Your task to perform on an android device: Open maps Image 0: 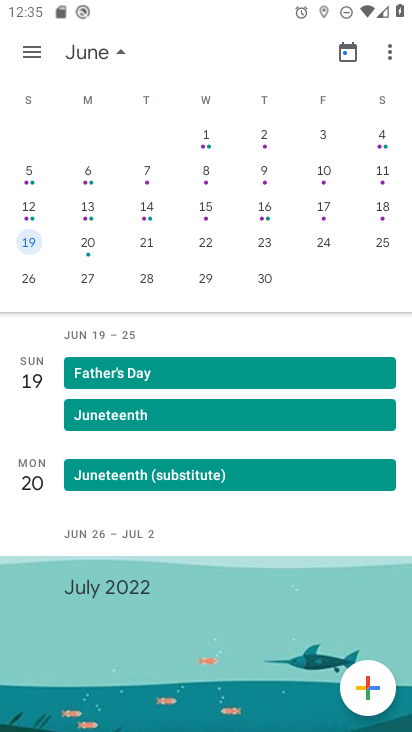
Step 0: press home button
Your task to perform on an android device: Open maps Image 1: 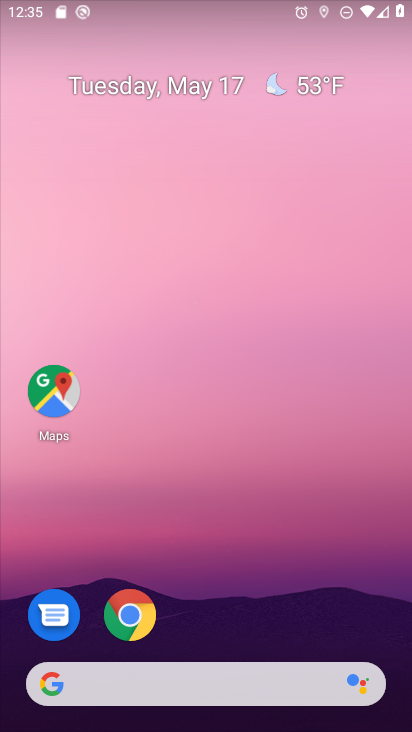
Step 1: click (46, 384)
Your task to perform on an android device: Open maps Image 2: 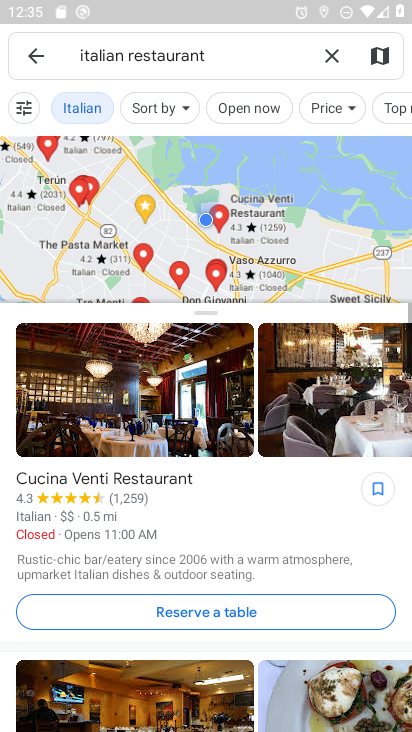
Step 2: click (327, 55)
Your task to perform on an android device: Open maps Image 3: 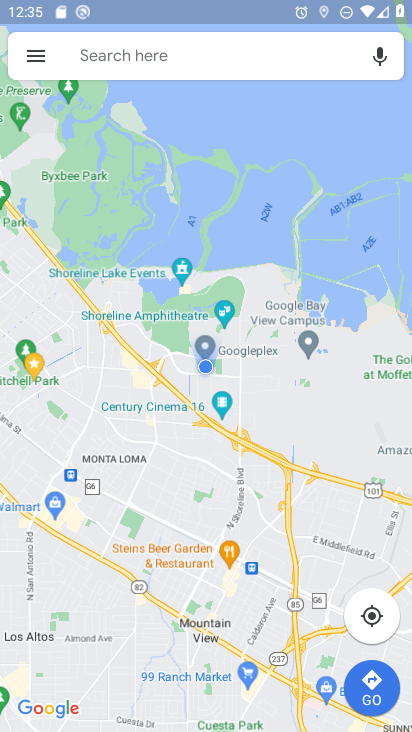
Step 3: task complete